Your task to perform on an android device: Open calendar and show me the first week of next month Image 0: 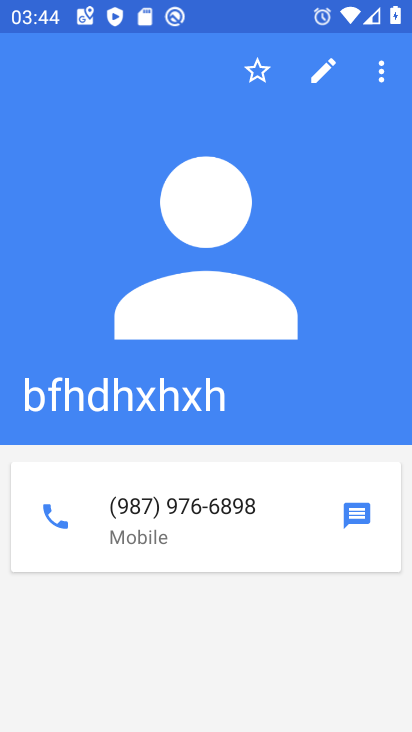
Step 0: press home button
Your task to perform on an android device: Open calendar and show me the first week of next month Image 1: 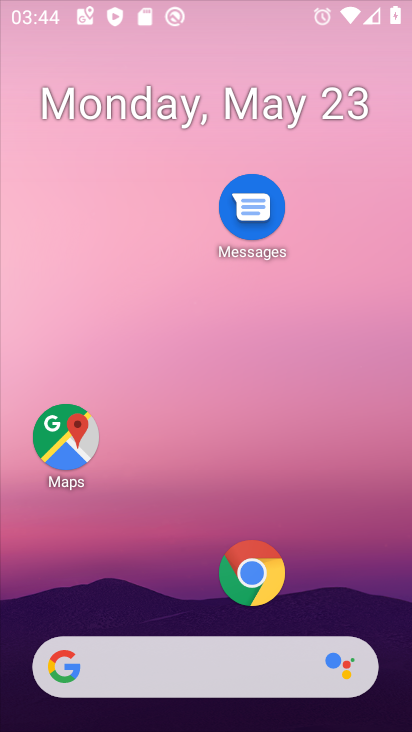
Step 1: drag from (288, 661) to (323, 32)
Your task to perform on an android device: Open calendar and show me the first week of next month Image 2: 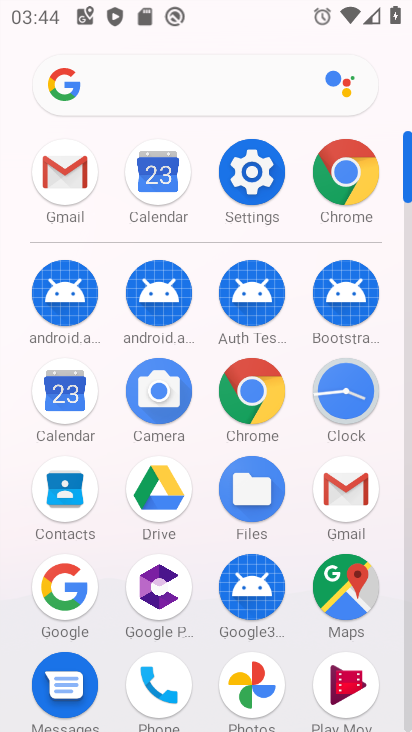
Step 2: click (61, 388)
Your task to perform on an android device: Open calendar and show me the first week of next month Image 3: 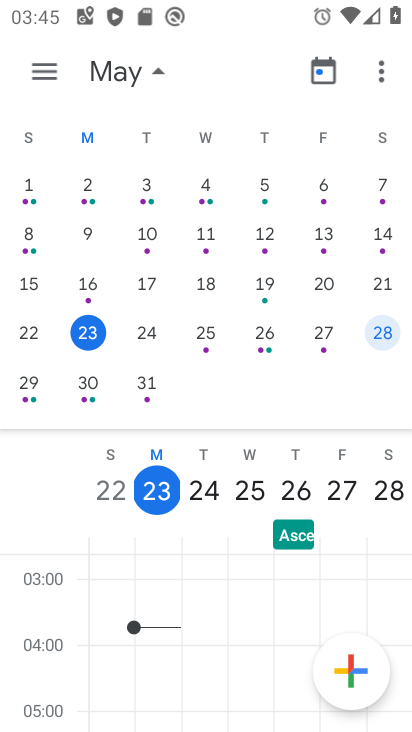
Step 3: click (144, 70)
Your task to perform on an android device: Open calendar and show me the first week of next month Image 4: 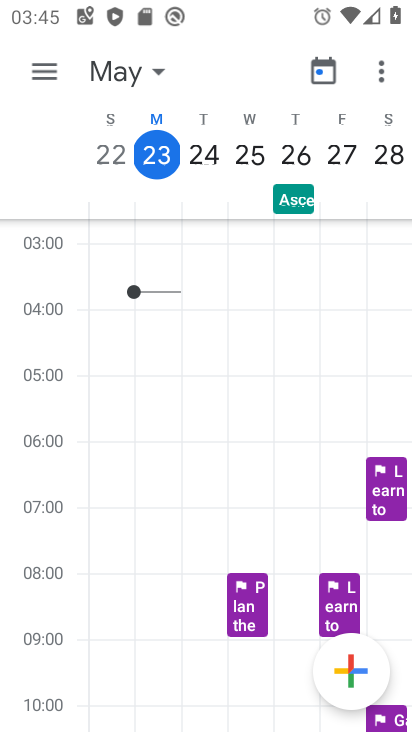
Step 4: click (160, 70)
Your task to perform on an android device: Open calendar and show me the first week of next month Image 5: 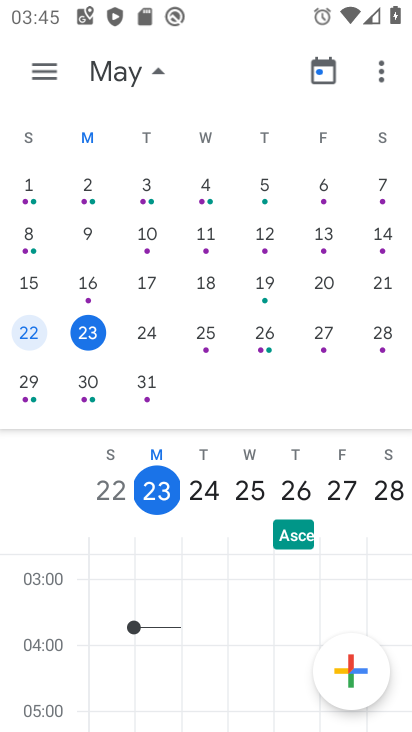
Step 5: drag from (334, 269) to (2, 299)
Your task to perform on an android device: Open calendar and show me the first week of next month Image 6: 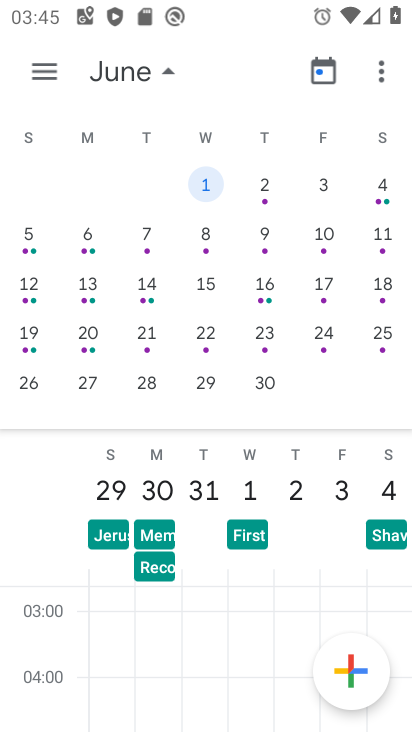
Step 6: click (318, 186)
Your task to perform on an android device: Open calendar and show me the first week of next month Image 7: 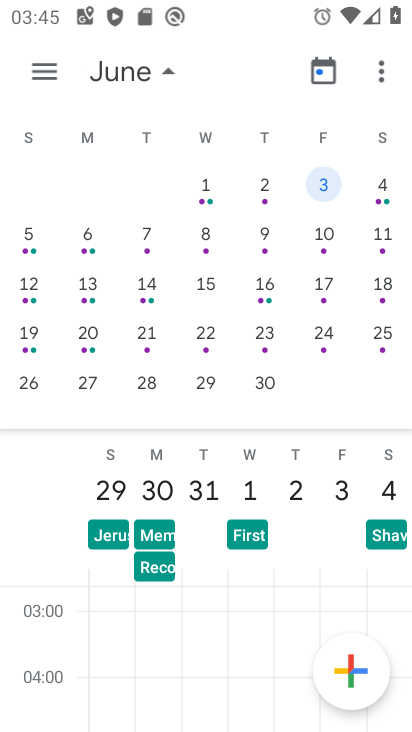
Step 7: task complete